Your task to perform on an android device: Search for seafood restaurants on Google Maps Image 0: 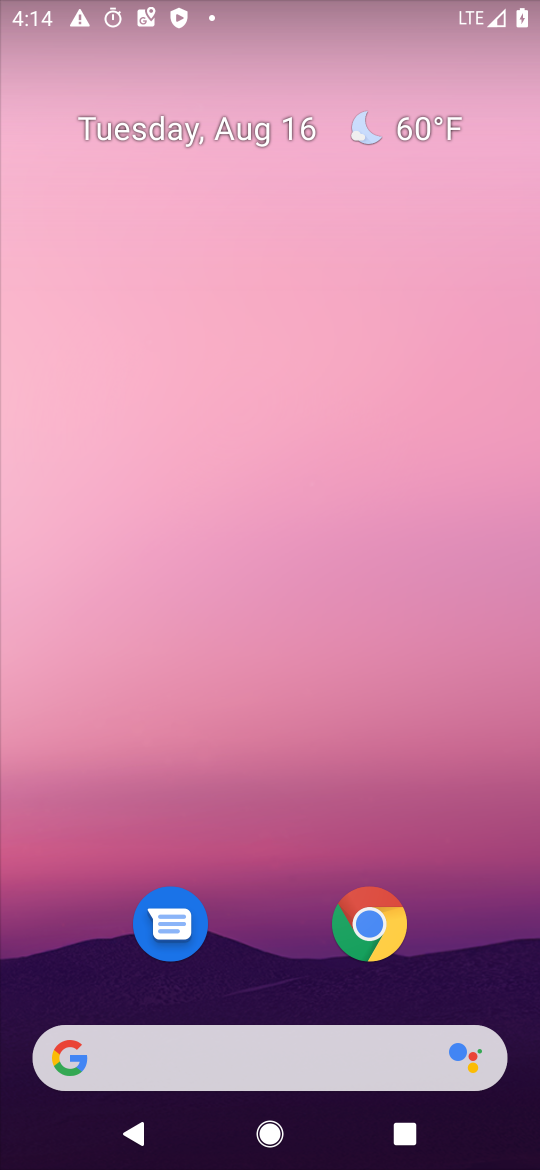
Step 0: drag from (235, 988) to (344, 63)
Your task to perform on an android device: Search for seafood restaurants on Google Maps Image 1: 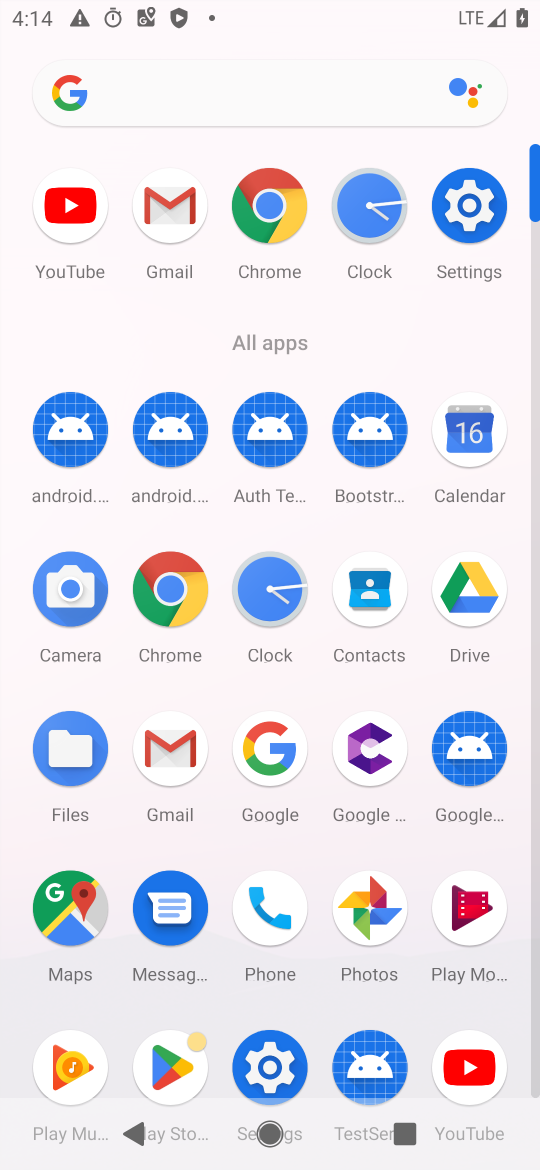
Step 1: click (52, 916)
Your task to perform on an android device: Search for seafood restaurants on Google Maps Image 2: 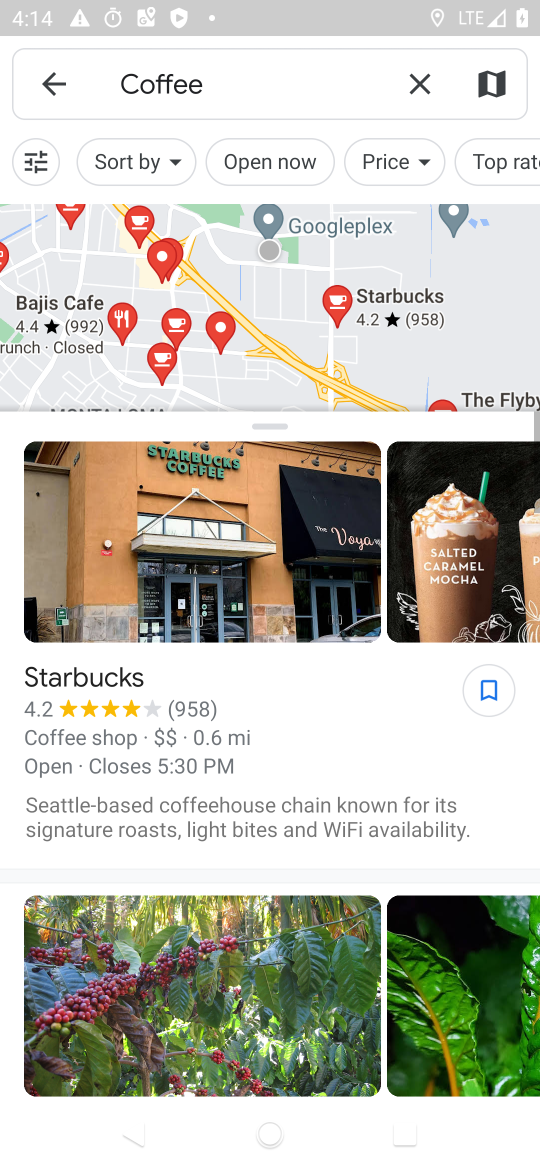
Step 2: click (423, 79)
Your task to perform on an android device: Search for seafood restaurants on Google Maps Image 3: 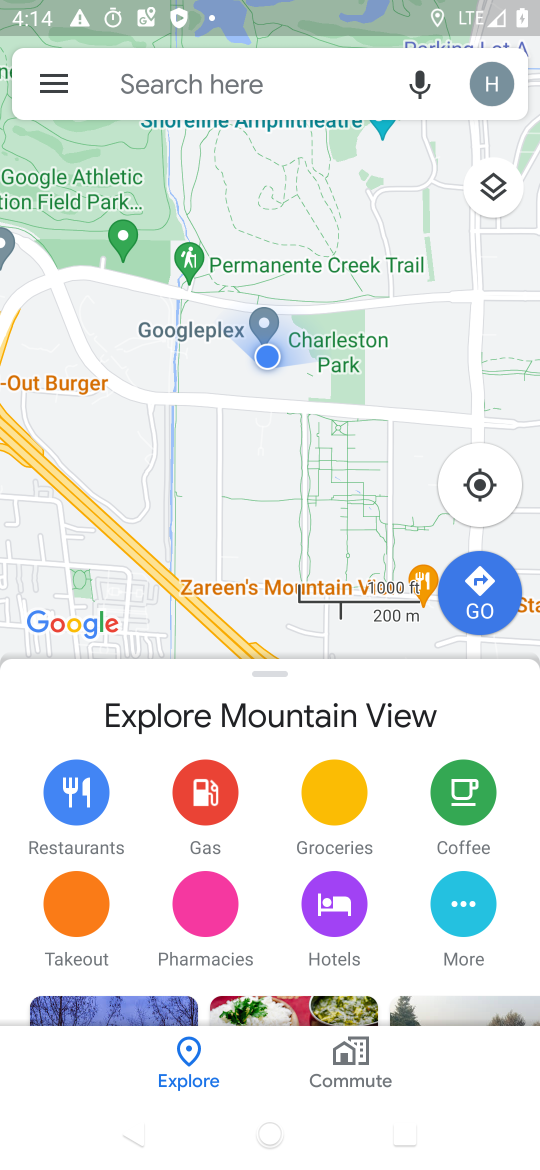
Step 3: click (300, 67)
Your task to perform on an android device: Search for seafood restaurants on Google Maps Image 4: 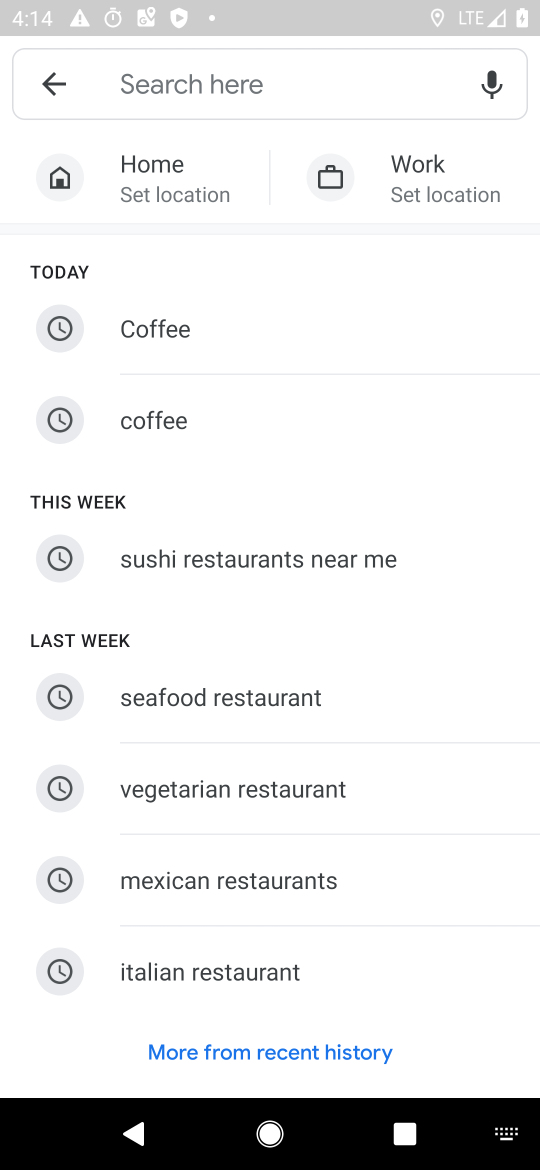
Step 4: click (241, 686)
Your task to perform on an android device: Search for seafood restaurants on Google Maps Image 5: 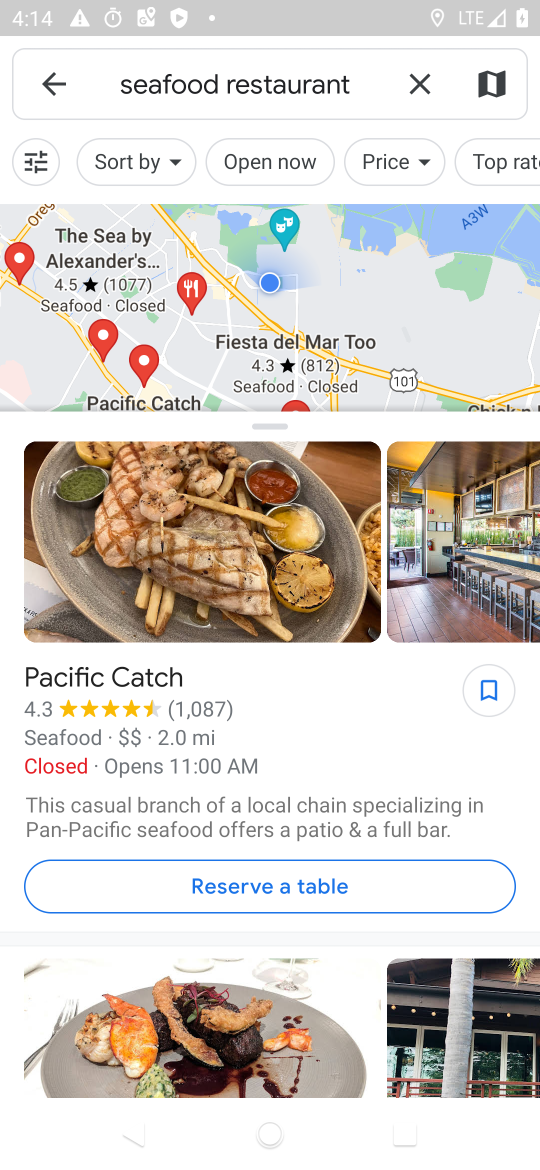
Step 5: task complete